Your task to perform on an android device: Add "usb-c to usb-b" to the cart on bestbuy Image 0: 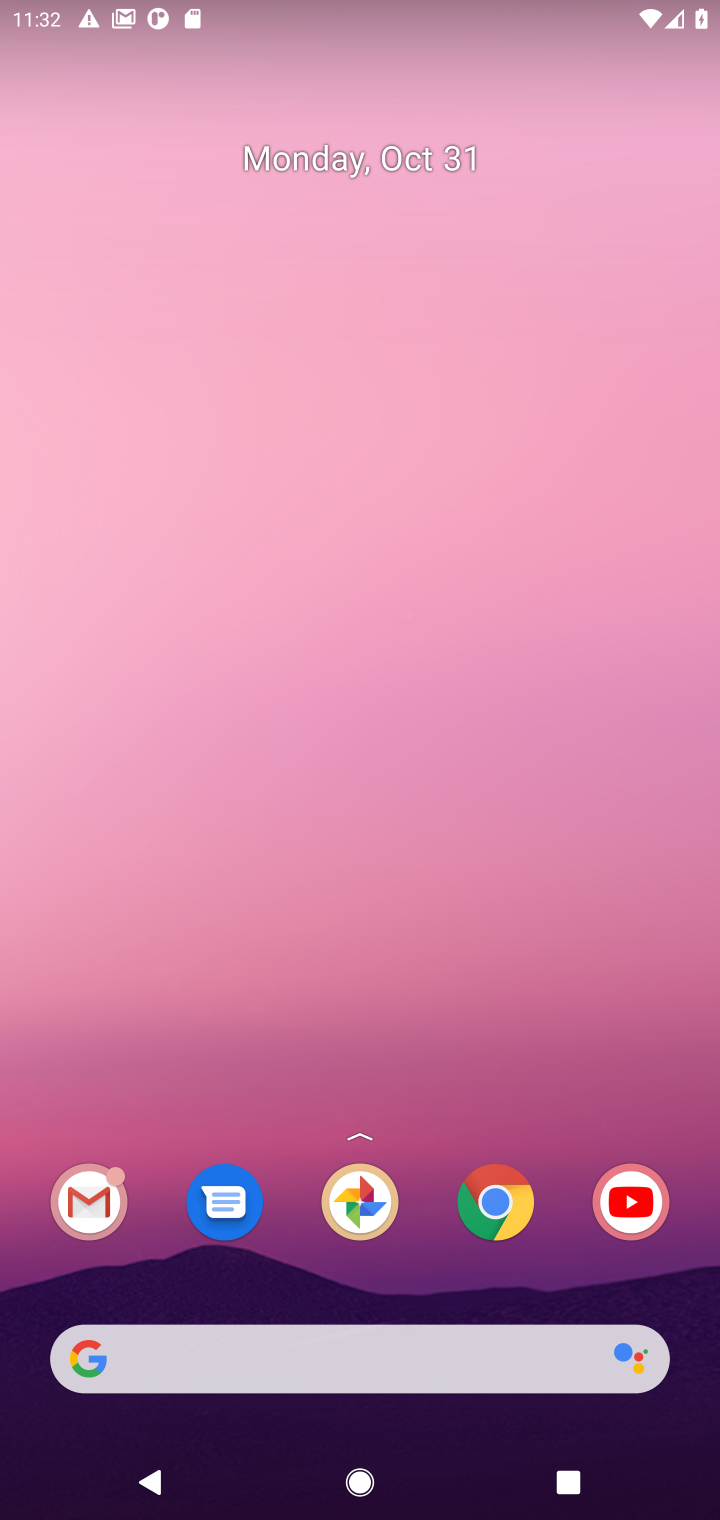
Step 0: click (489, 1194)
Your task to perform on an android device: Add "usb-c to usb-b" to the cart on bestbuy Image 1: 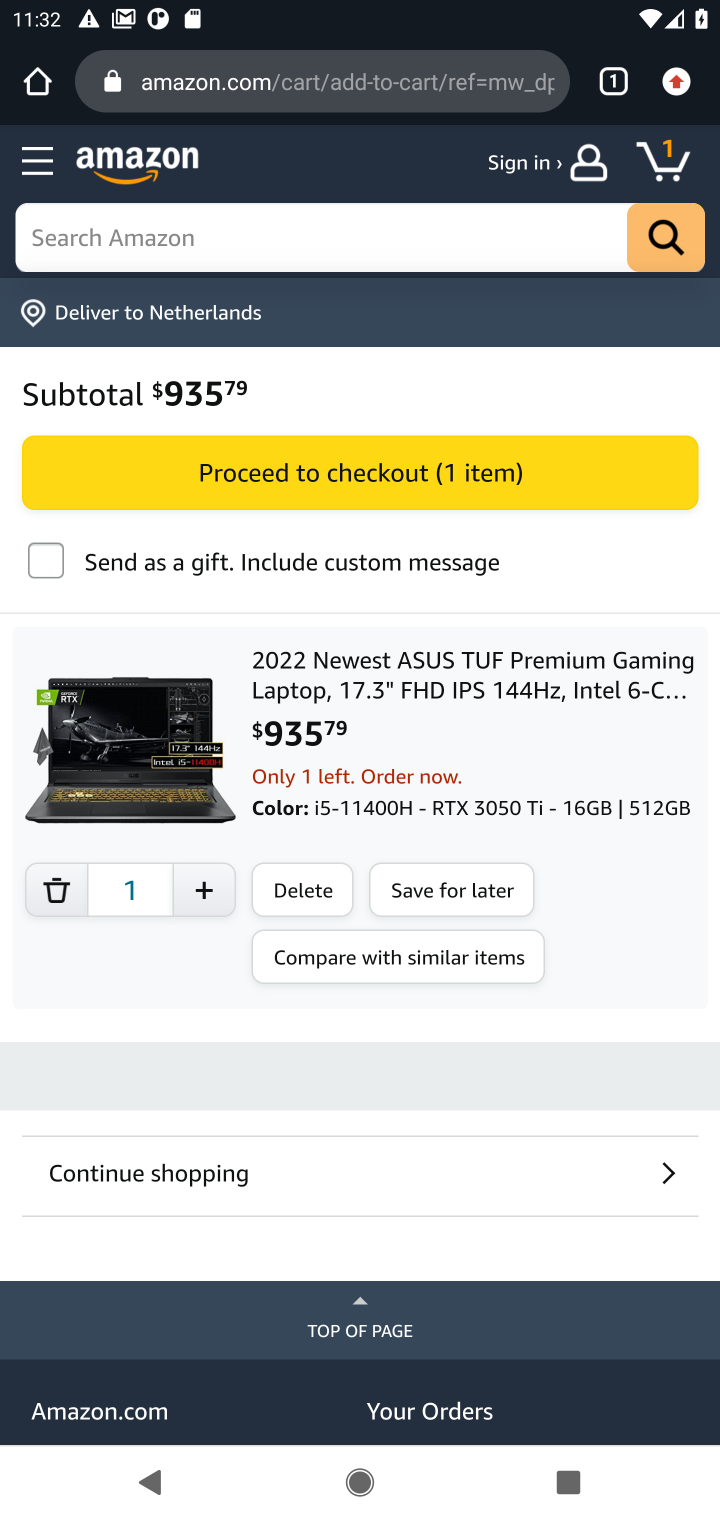
Step 1: click (609, 76)
Your task to perform on an android device: Add "usb-c to usb-b" to the cart on bestbuy Image 2: 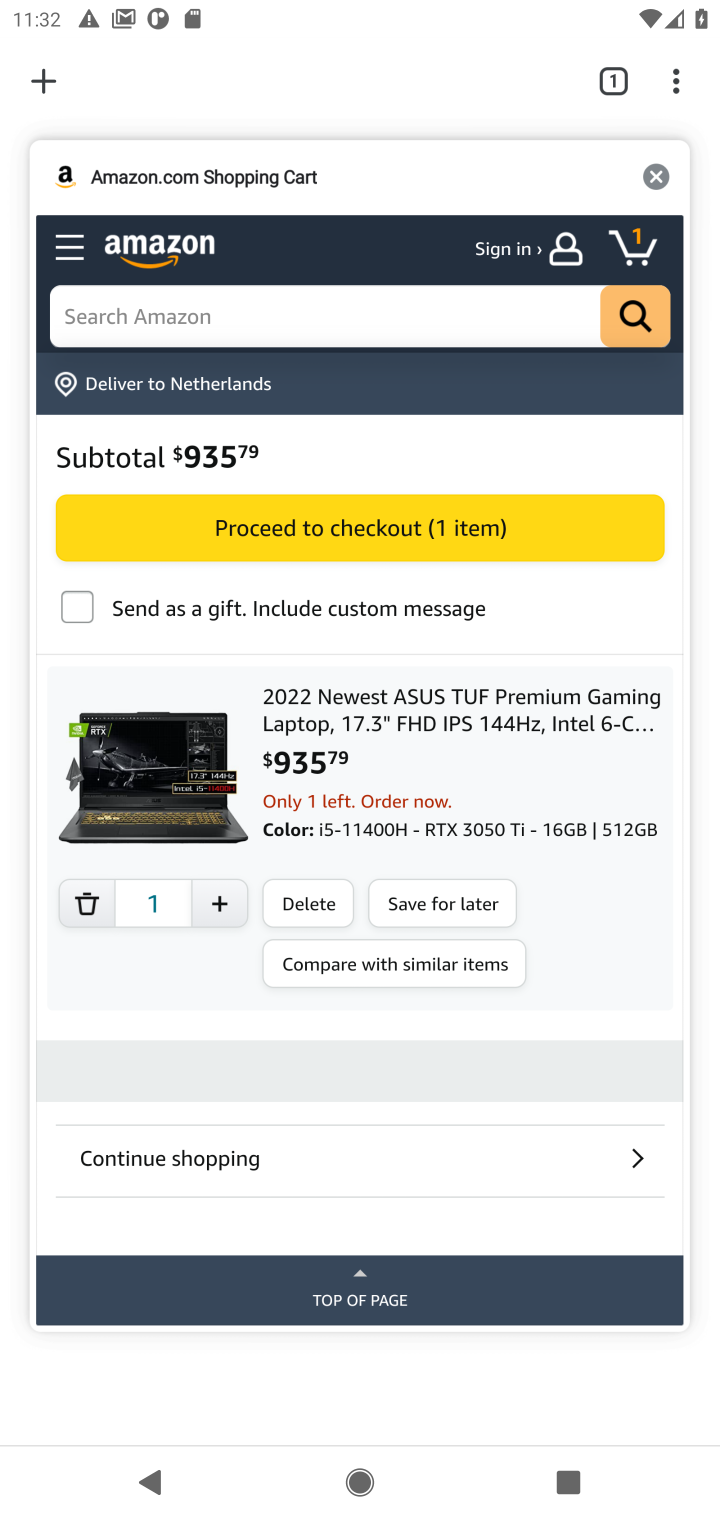
Step 2: click (41, 80)
Your task to perform on an android device: Add "usb-c to usb-b" to the cart on bestbuy Image 3: 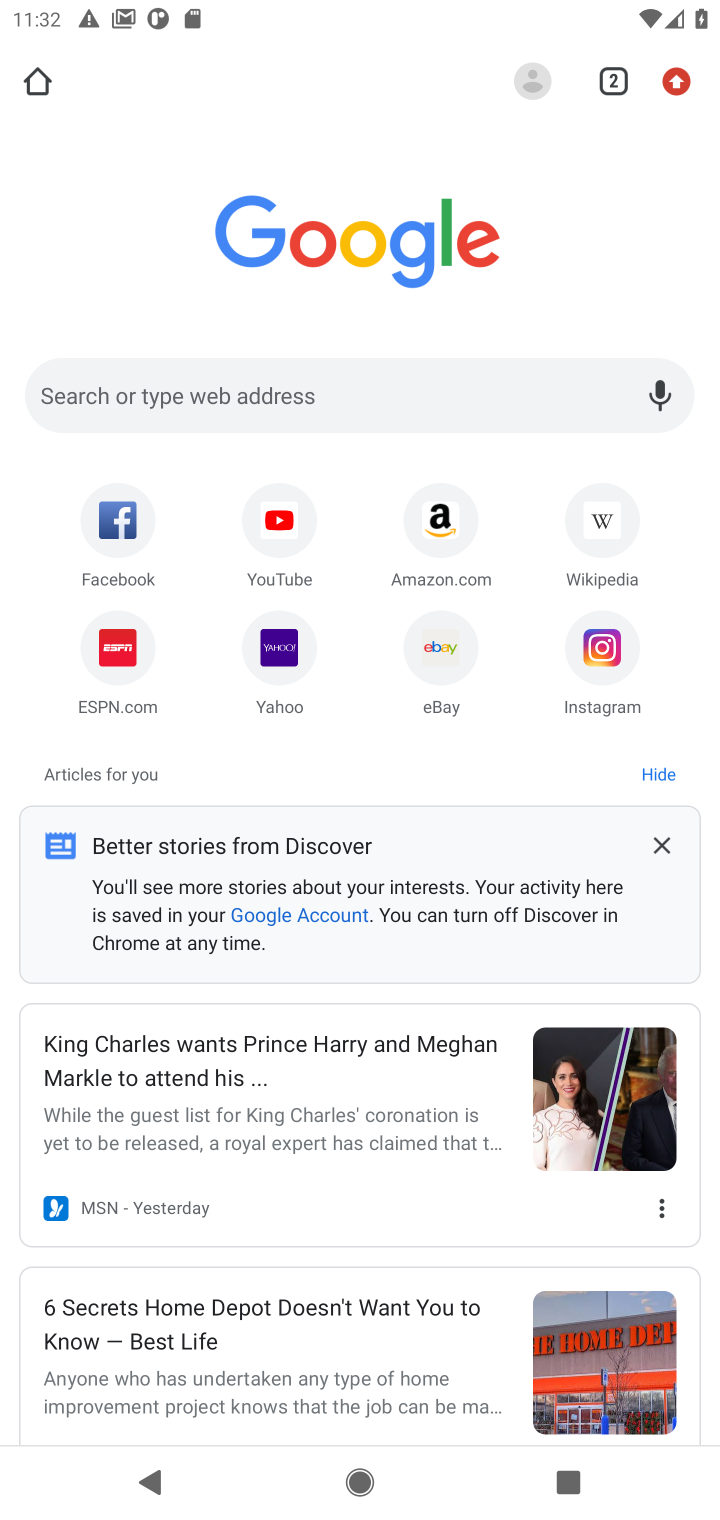
Step 3: click (448, 397)
Your task to perform on an android device: Add "usb-c to usb-b" to the cart on bestbuy Image 4: 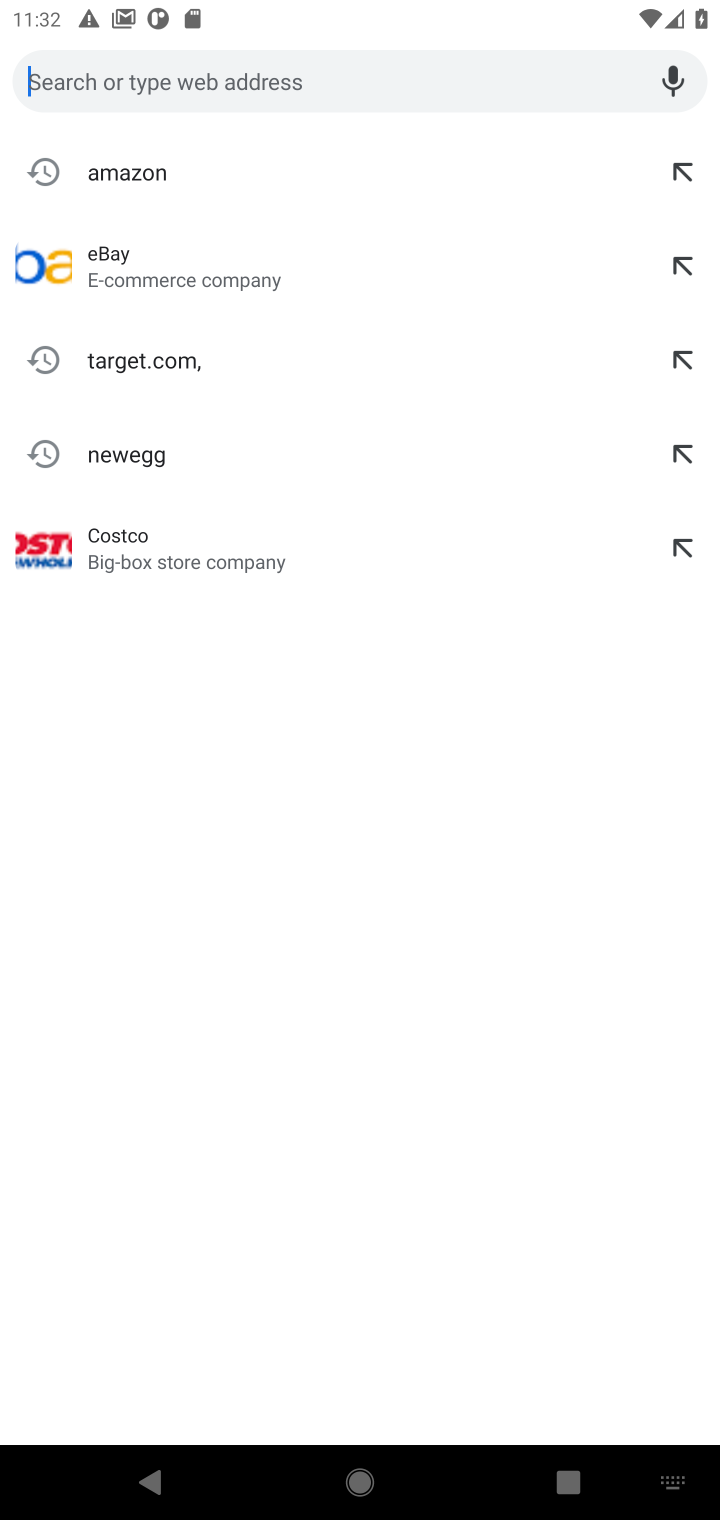
Step 4: type "bestbuy"
Your task to perform on an android device: Add "usb-c to usb-b" to the cart on bestbuy Image 5: 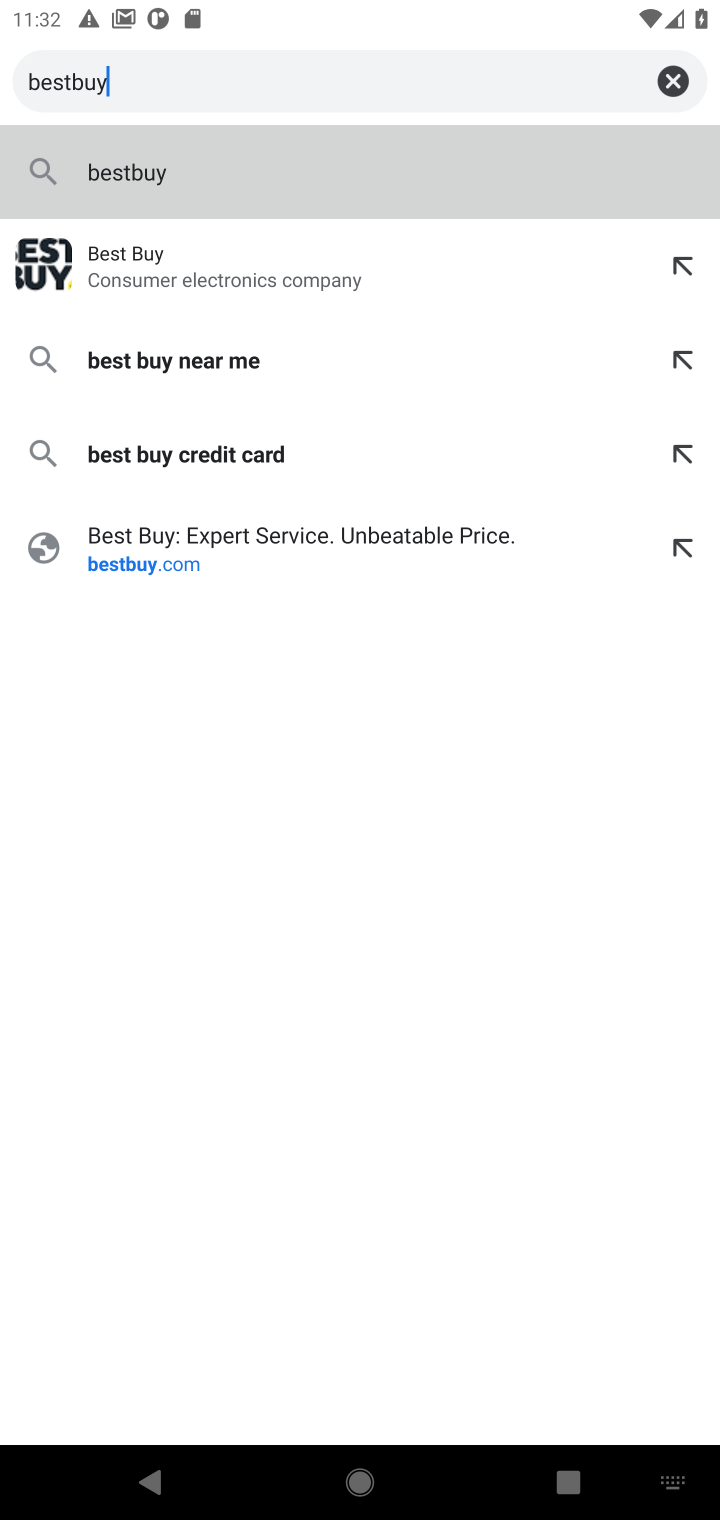
Step 5: click (142, 192)
Your task to perform on an android device: Add "usb-c to usb-b" to the cart on bestbuy Image 6: 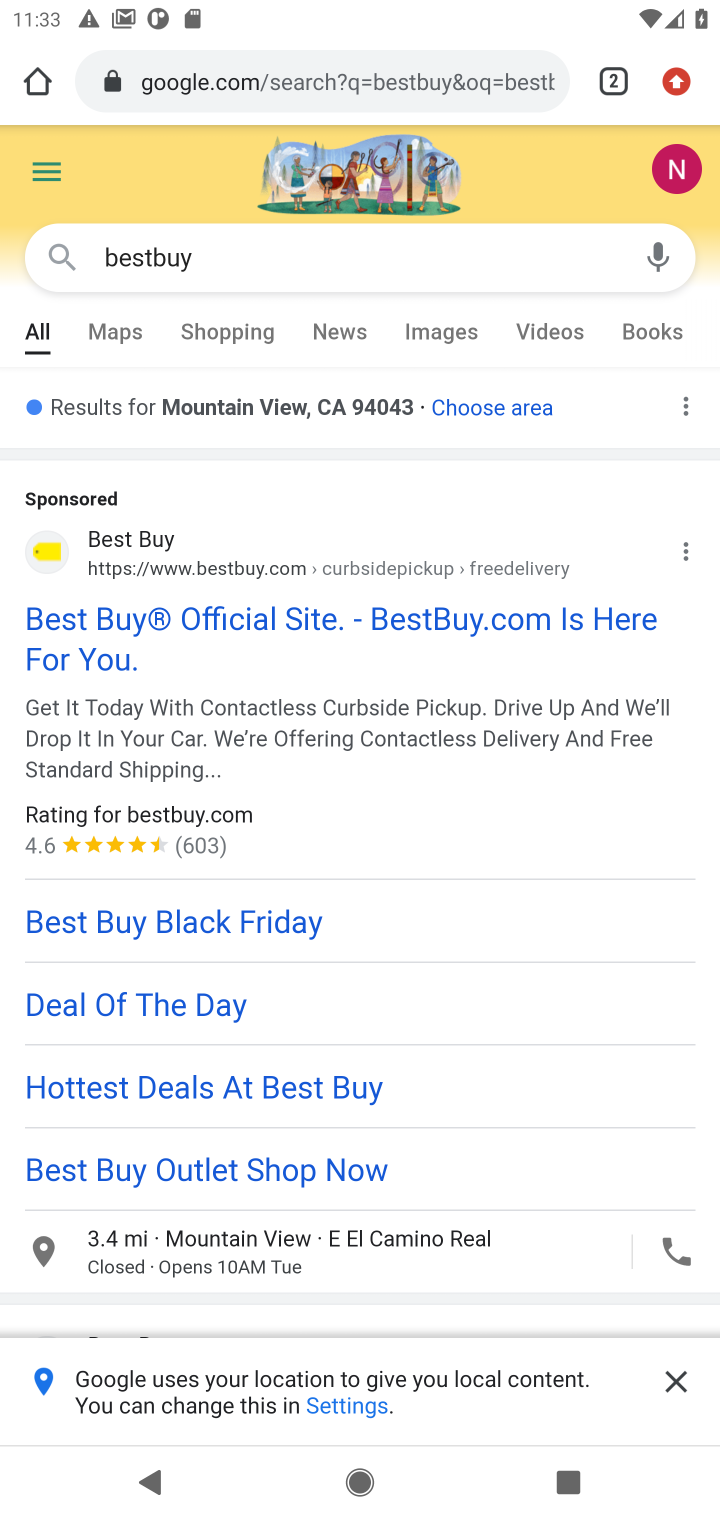
Step 6: drag from (323, 1256) to (313, 443)
Your task to perform on an android device: Add "usb-c to usb-b" to the cart on bestbuy Image 7: 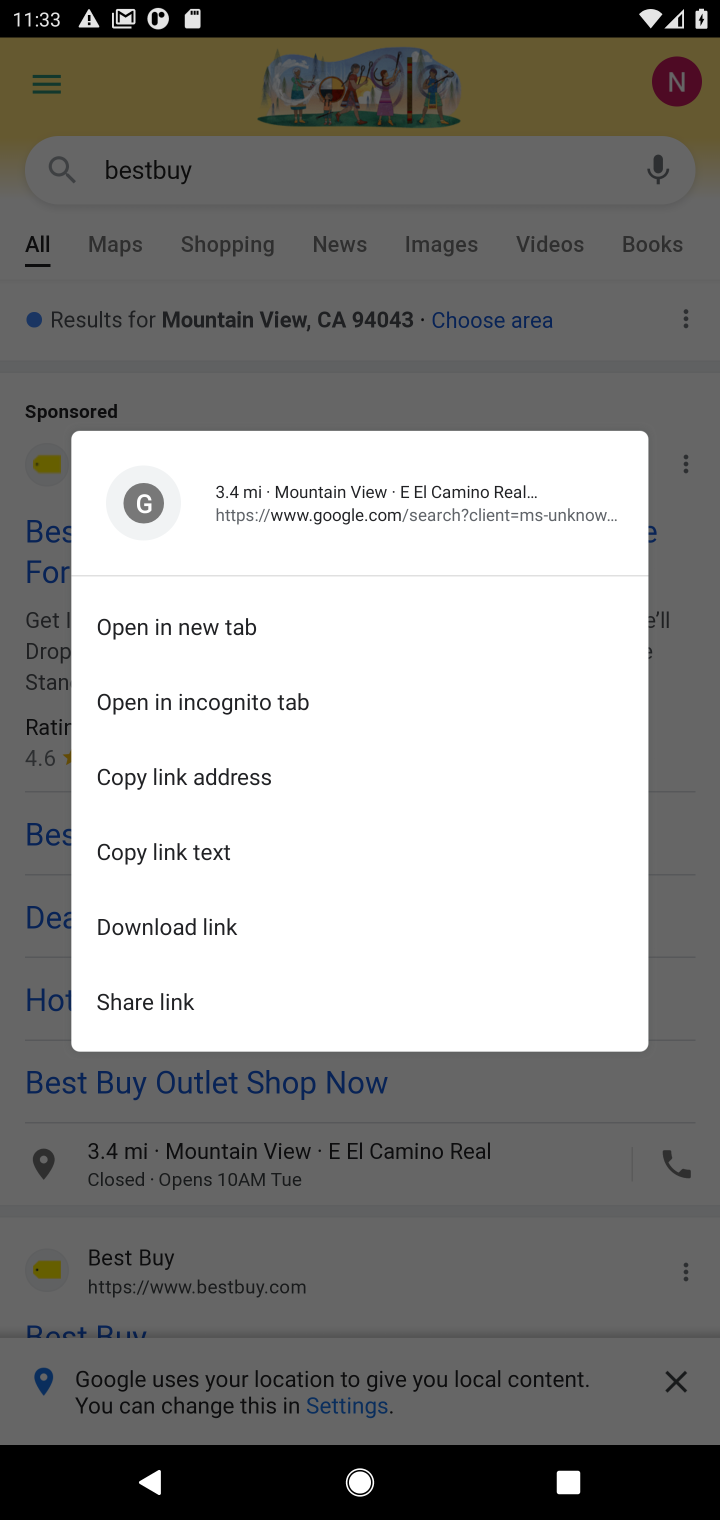
Step 7: click (342, 1165)
Your task to perform on an android device: Add "usb-c to usb-b" to the cart on bestbuy Image 8: 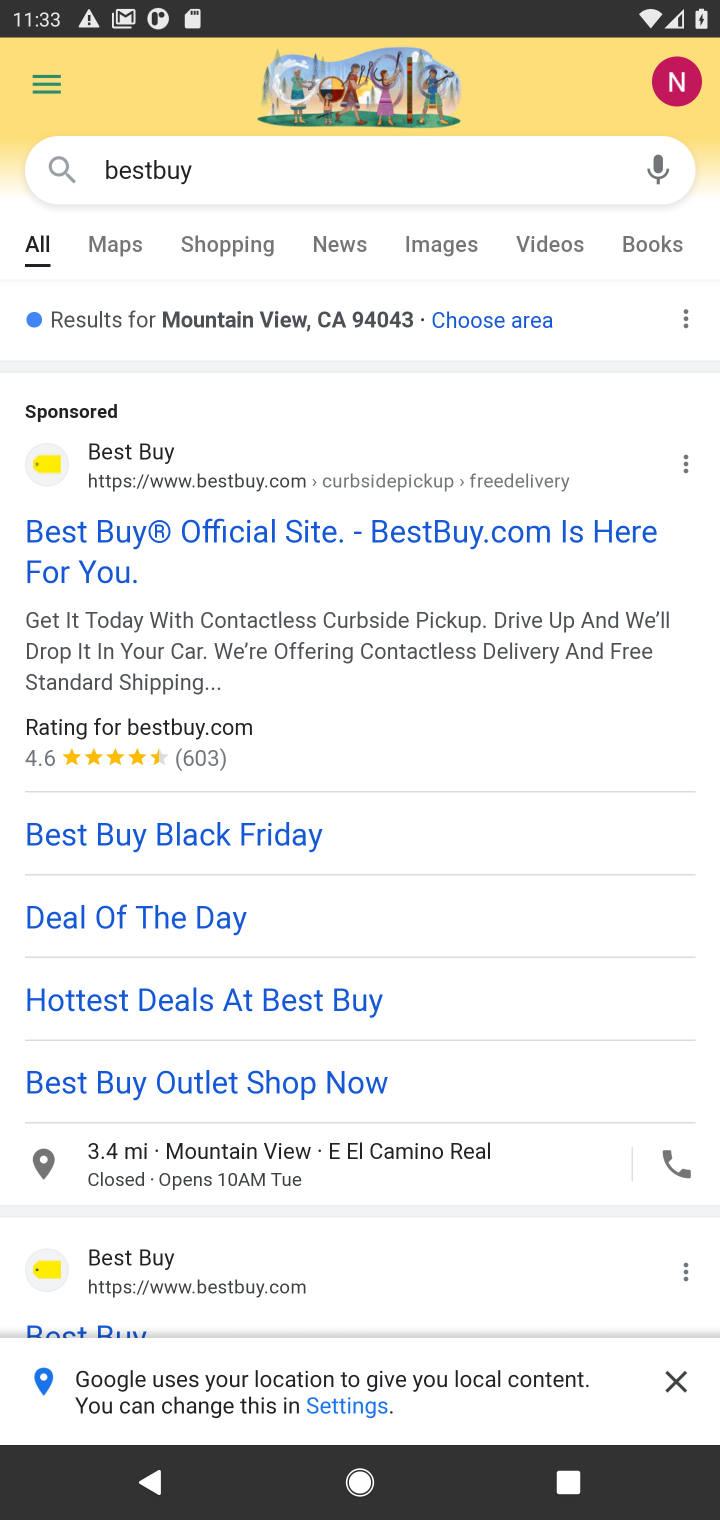
Step 8: click (83, 1264)
Your task to perform on an android device: Add "usb-c to usb-b" to the cart on bestbuy Image 9: 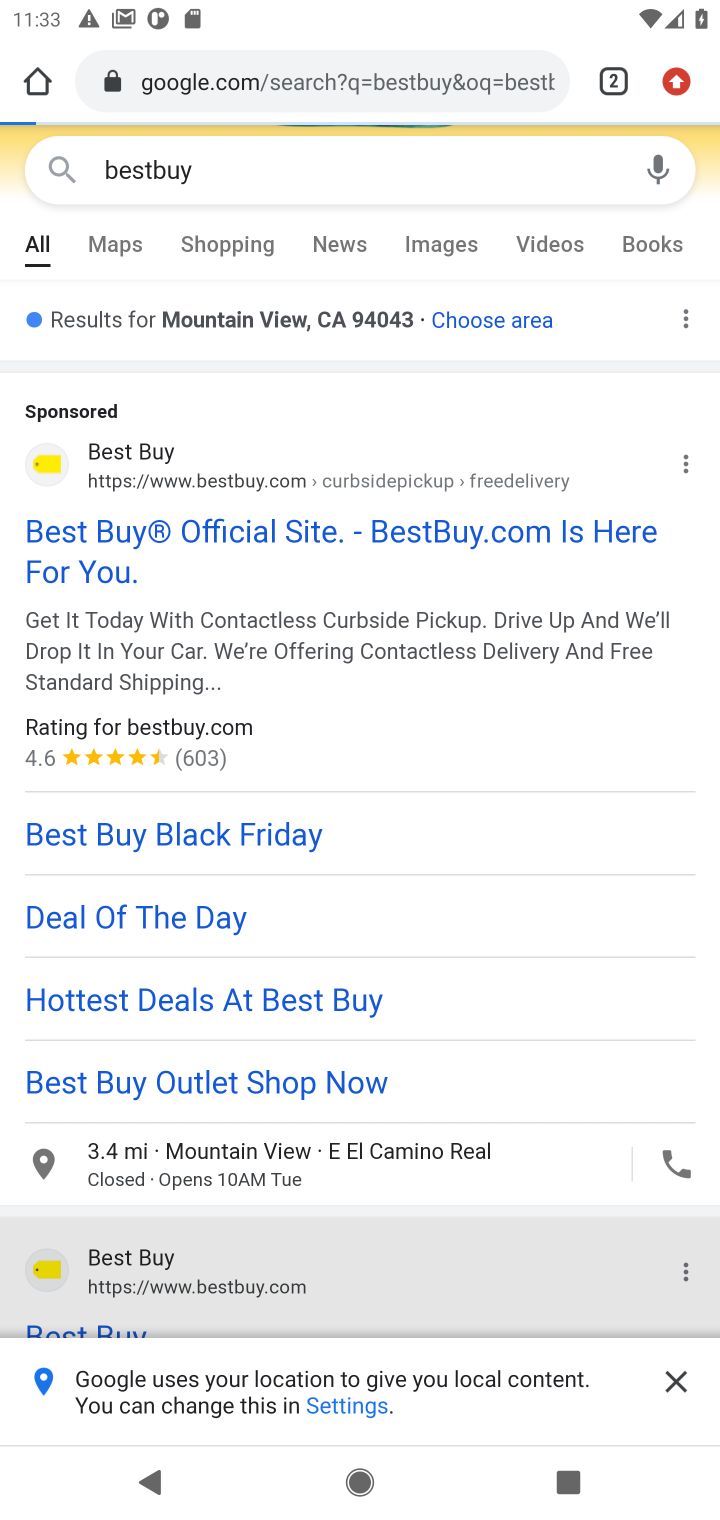
Step 9: click (83, 1264)
Your task to perform on an android device: Add "usb-c to usb-b" to the cart on bestbuy Image 10: 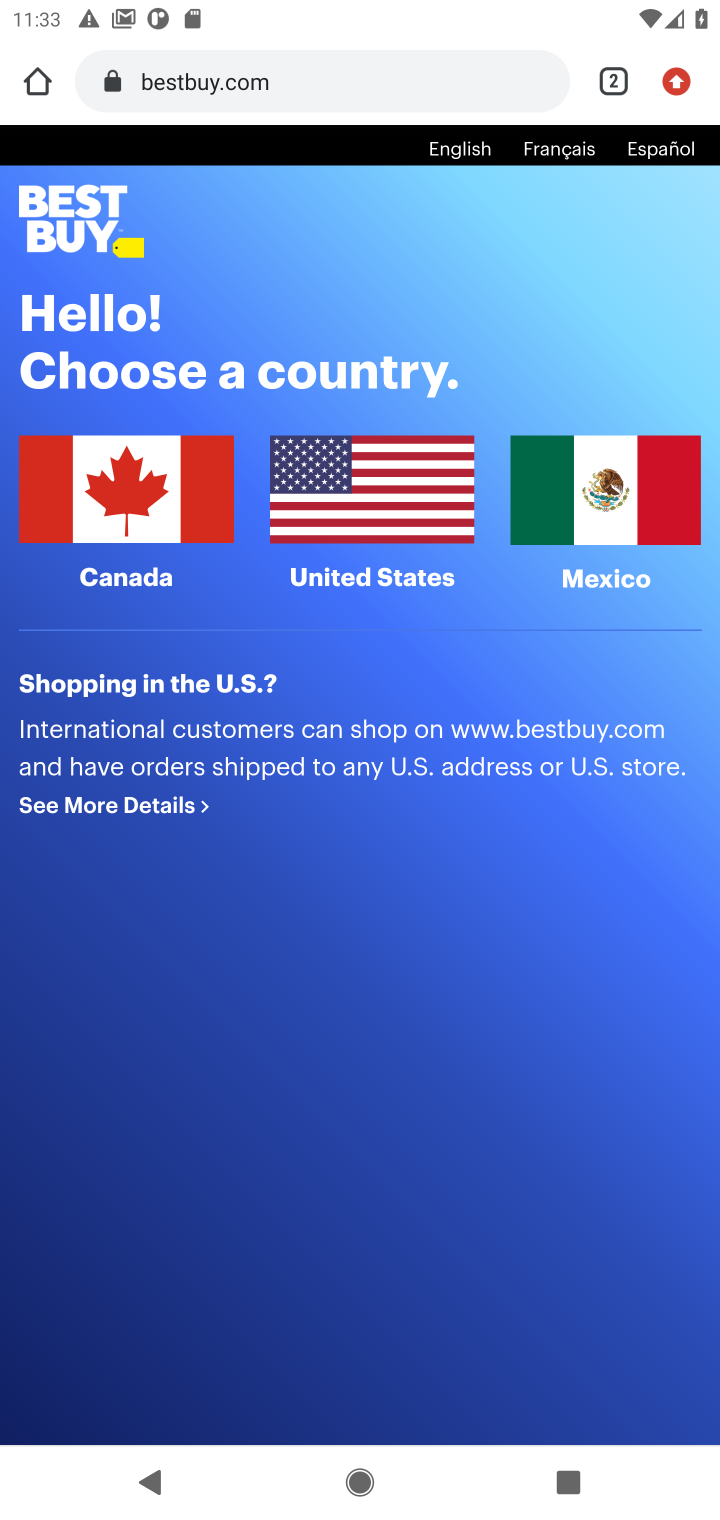
Step 10: click (405, 496)
Your task to perform on an android device: Add "usb-c to usb-b" to the cart on bestbuy Image 11: 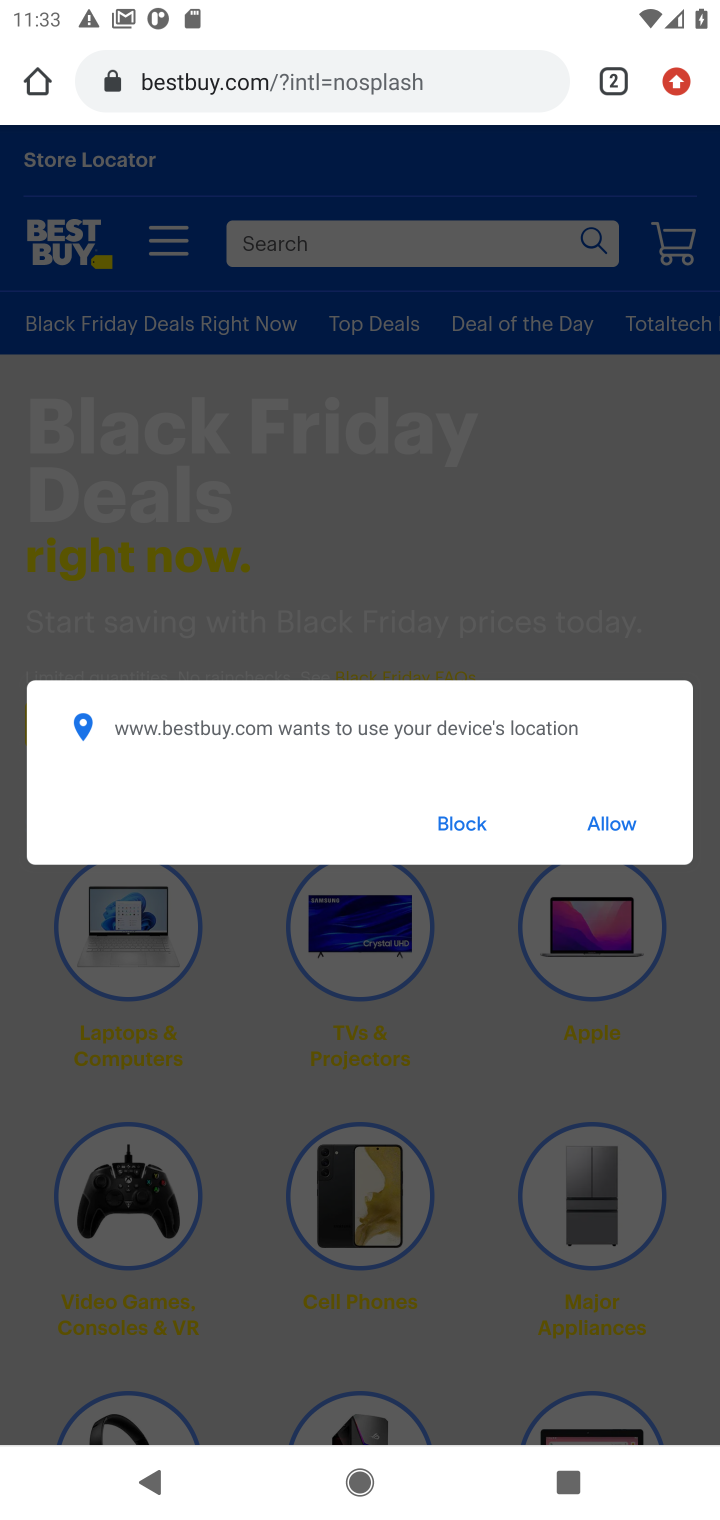
Step 11: click (612, 813)
Your task to perform on an android device: Add "usb-c to usb-b" to the cart on bestbuy Image 12: 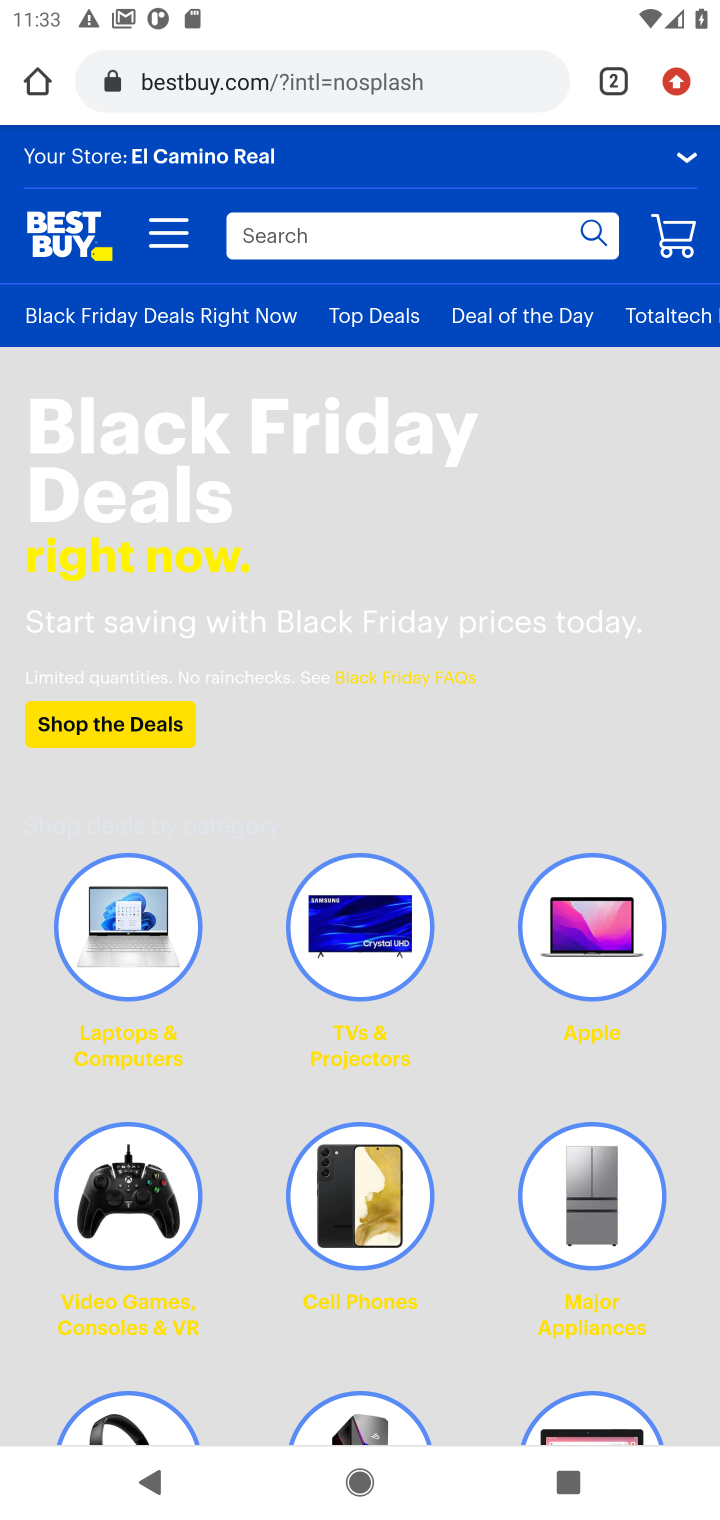
Step 12: click (328, 241)
Your task to perform on an android device: Add "usb-c to usb-b" to the cart on bestbuy Image 13: 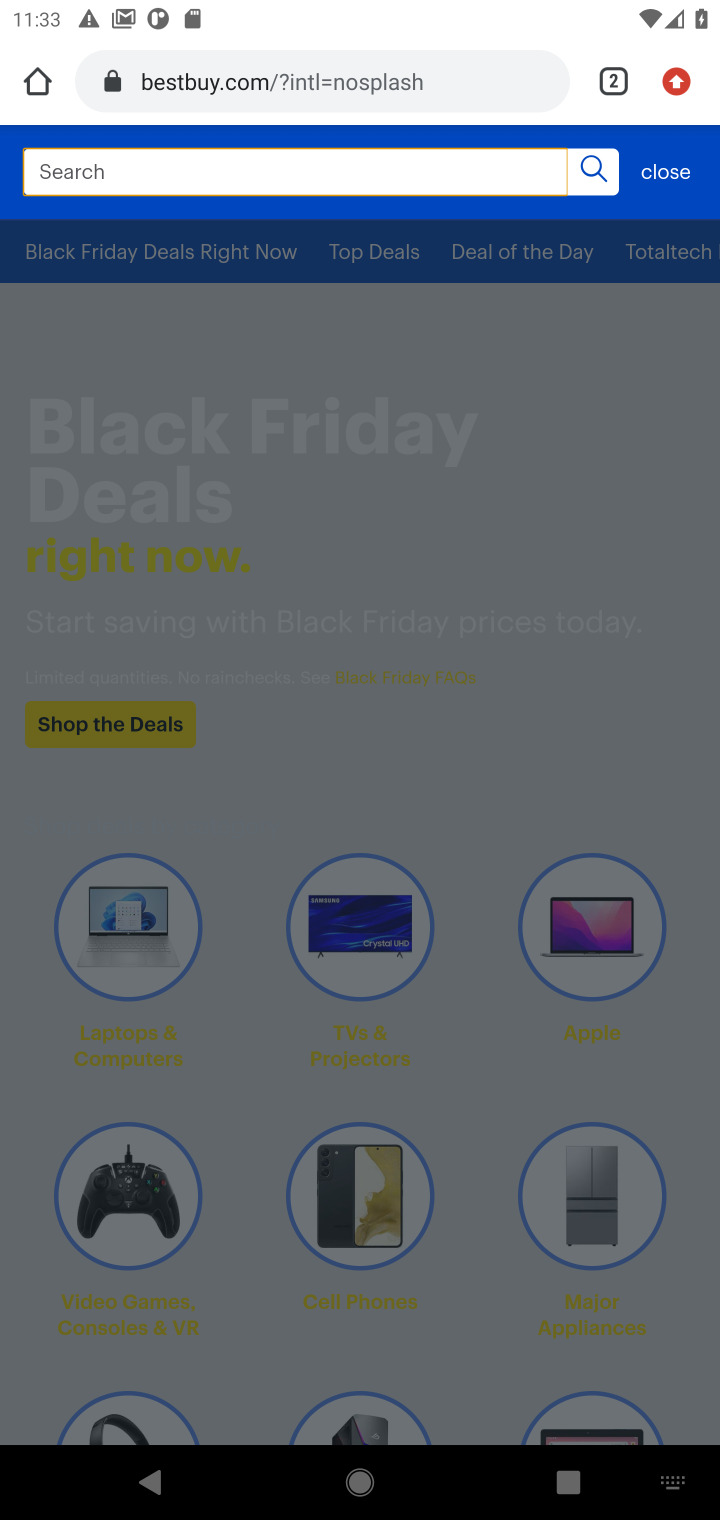
Step 13: type "usb-c to usb-b"
Your task to perform on an android device: Add "usb-c to usb-b" to the cart on bestbuy Image 14: 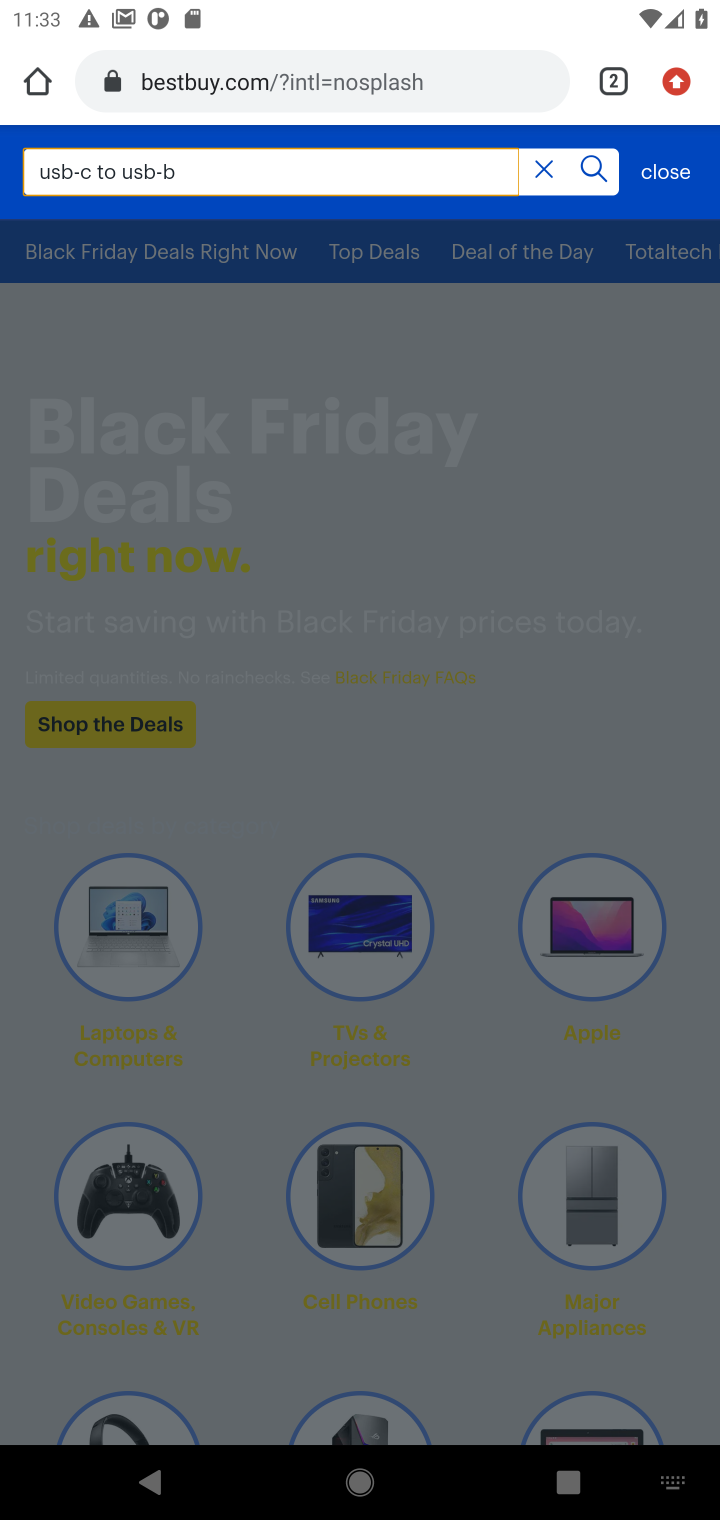
Step 14: click (599, 165)
Your task to perform on an android device: Add "usb-c to usb-b" to the cart on bestbuy Image 15: 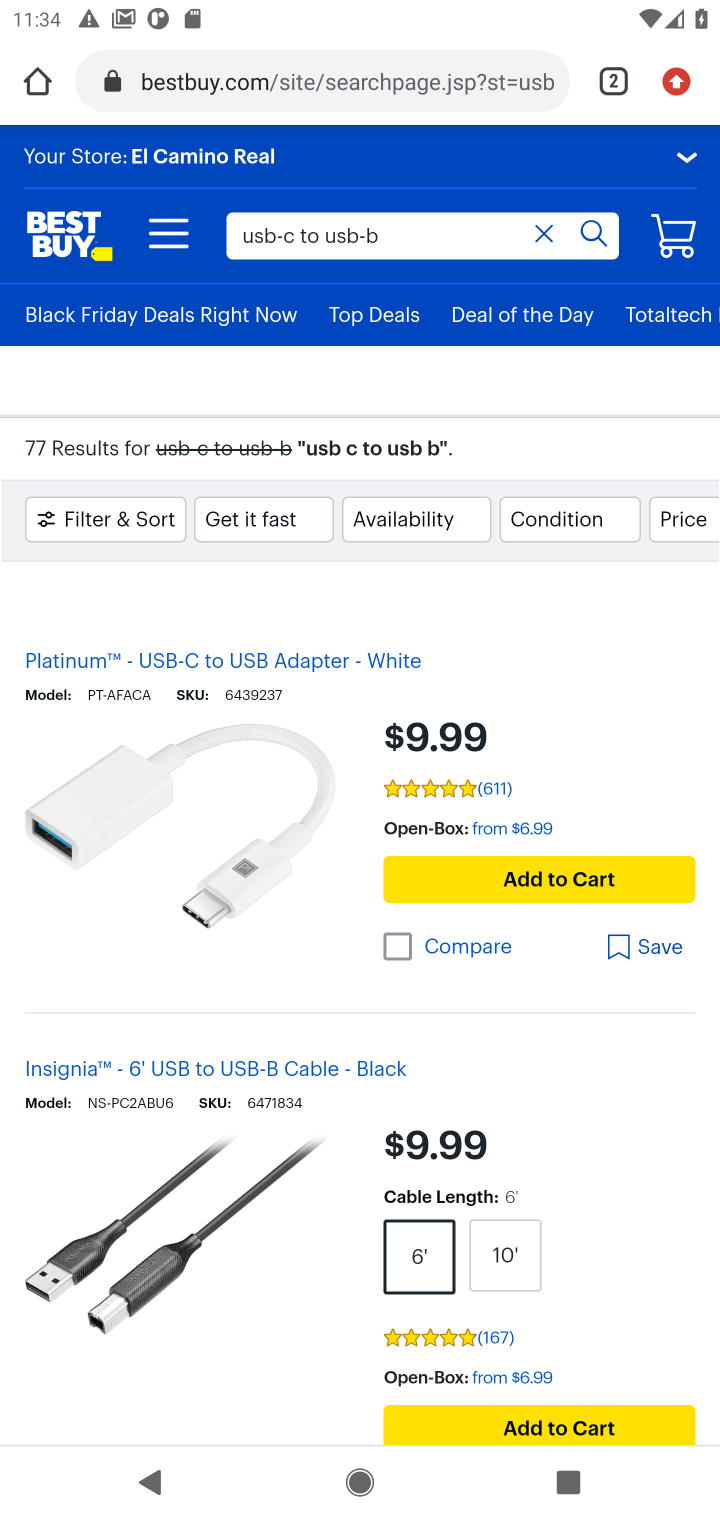
Step 15: click (518, 945)
Your task to perform on an android device: Add "usb-c to usb-b" to the cart on bestbuy Image 16: 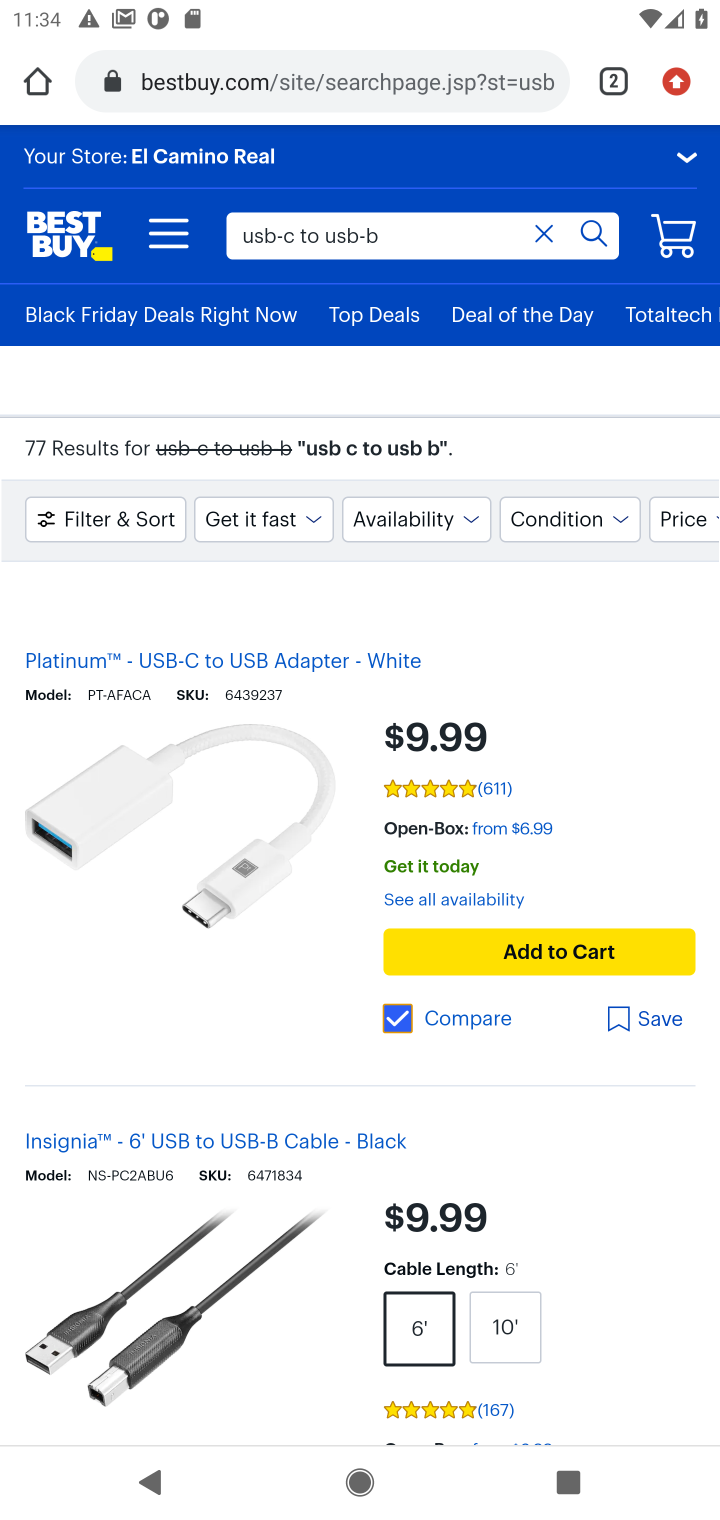
Step 16: click (397, 1017)
Your task to perform on an android device: Add "usb-c to usb-b" to the cart on bestbuy Image 17: 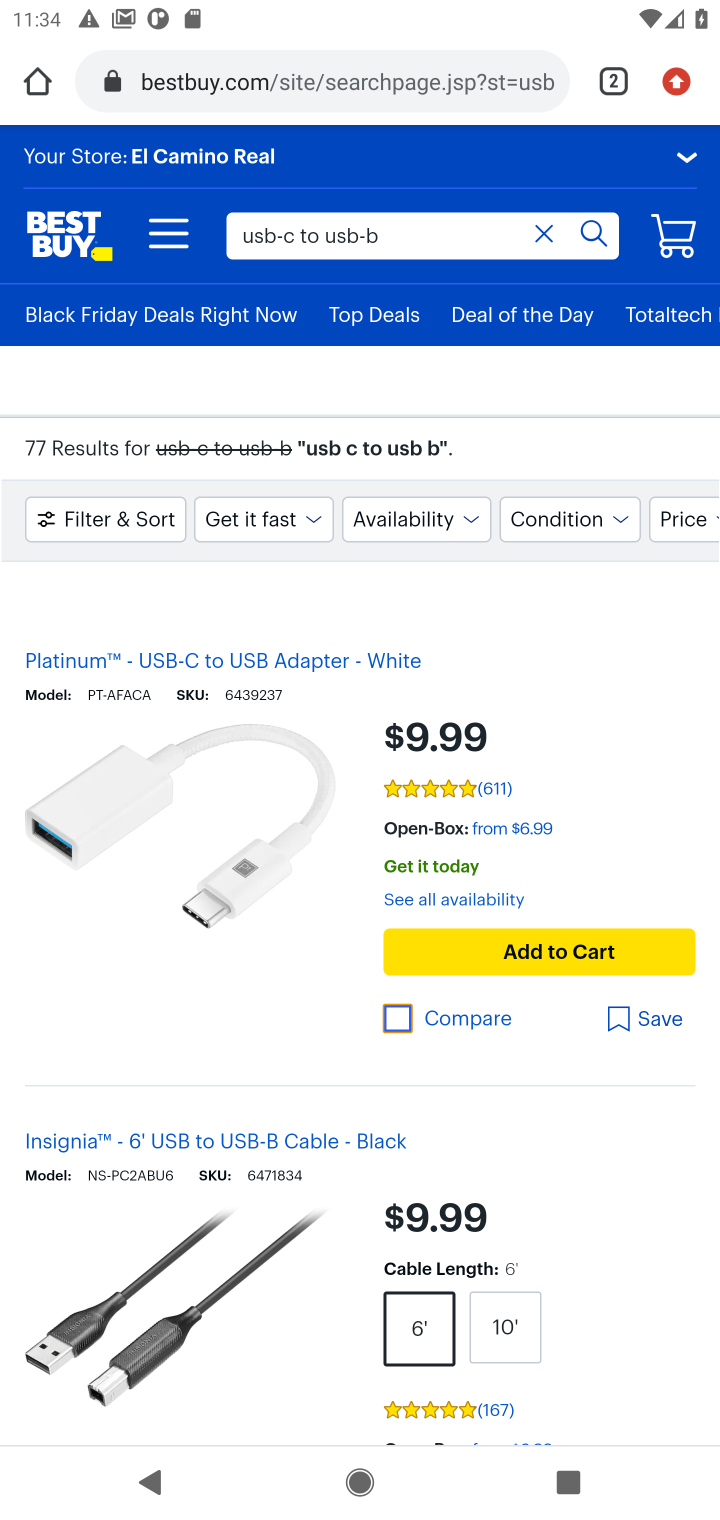
Step 17: click (545, 941)
Your task to perform on an android device: Add "usb-c to usb-b" to the cart on bestbuy Image 18: 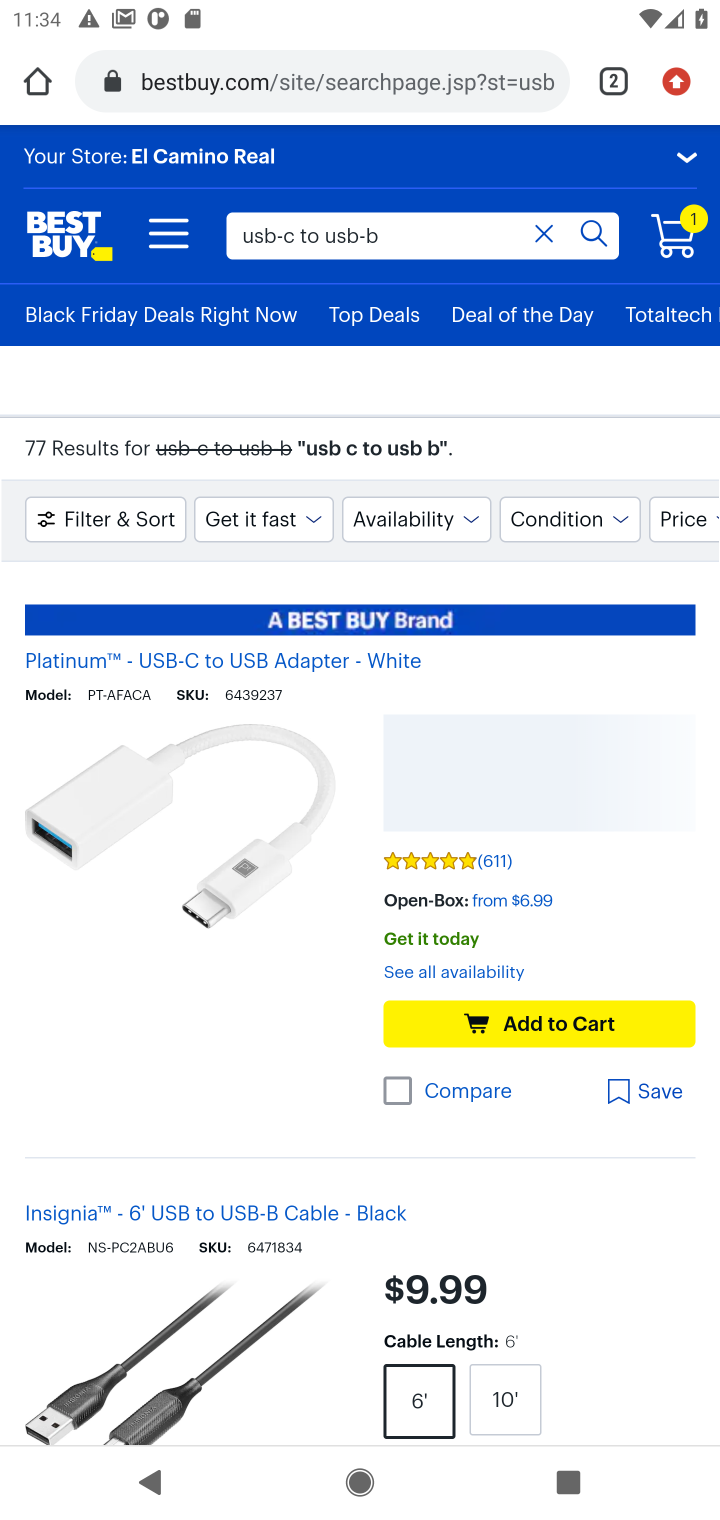
Step 18: task complete